Your task to perform on an android device: open the mobile data screen to see how much data has been used Image 0: 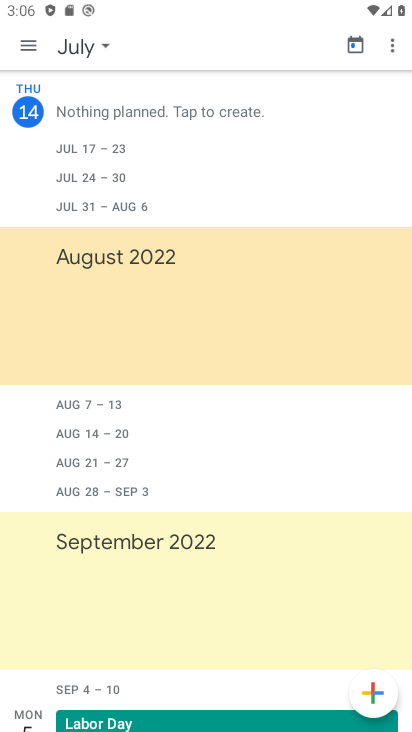
Step 0: press home button
Your task to perform on an android device: open the mobile data screen to see how much data has been used Image 1: 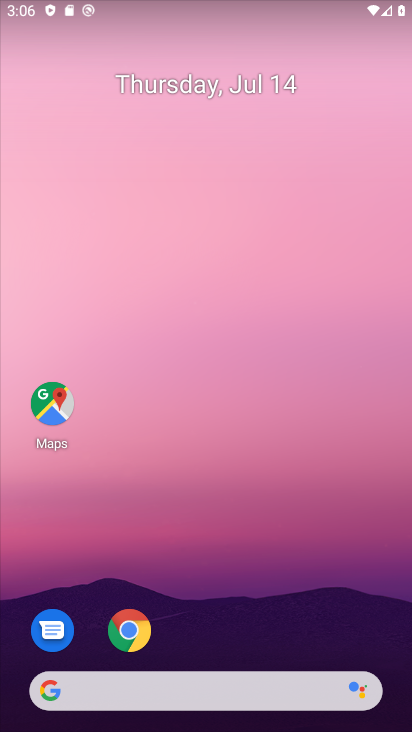
Step 1: drag from (355, 2) to (302, 730)
Your task to perform on an android device: open the mobile data screen to see how much data has been used Image 2: 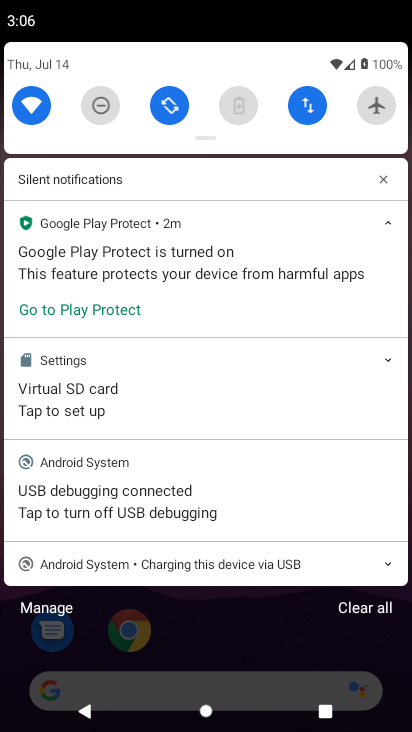
Step 2: click (322, 108)
Your task to perform on an android device: open the mobile data screen to see how much data has been used Image 3: 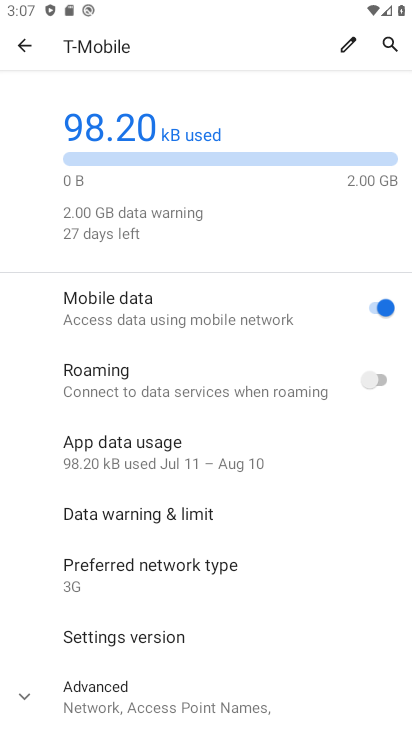
Step 3: task complete